Your task to perform on an android device: turn on javascript in the chrome app Image 0: 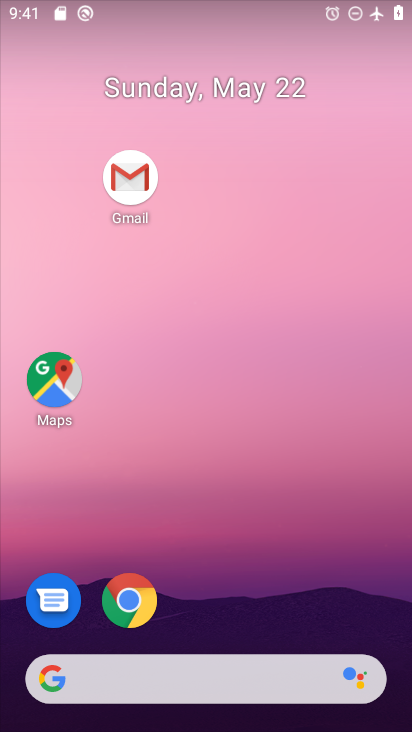
Step 0: drag from (230, 665) to (298, 133)
Your task to perform on an android device: turn on javascript in the chrome app Image 1: 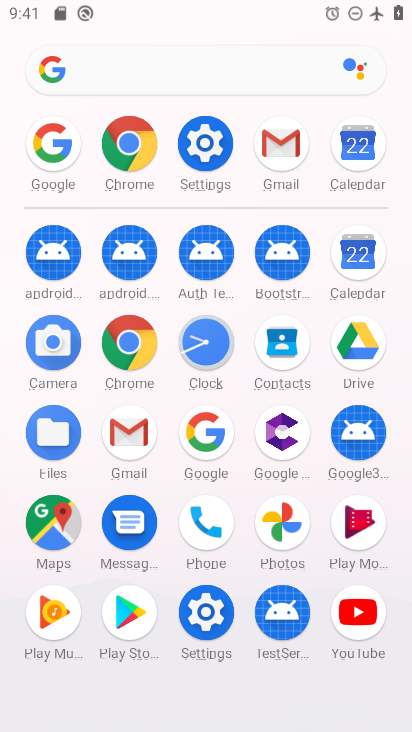
Step 1: click (131, 359)
Your task to perform on an android device: turn on javascript in the chrome app Image 2: 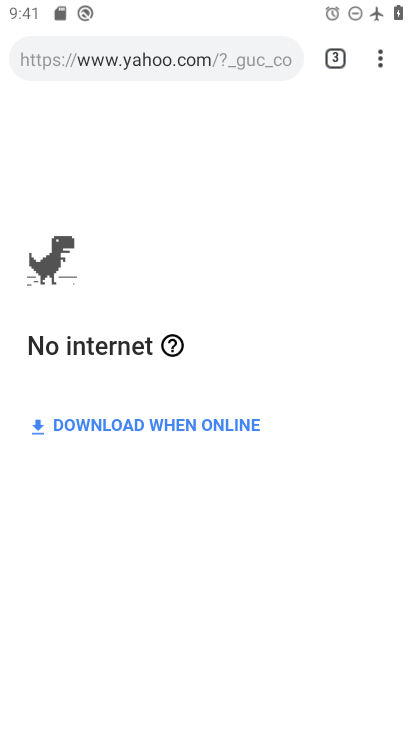
Step 2: click (385, 65)
Your task to perform on an android device: turn on javascript in the chrome app Image 3: 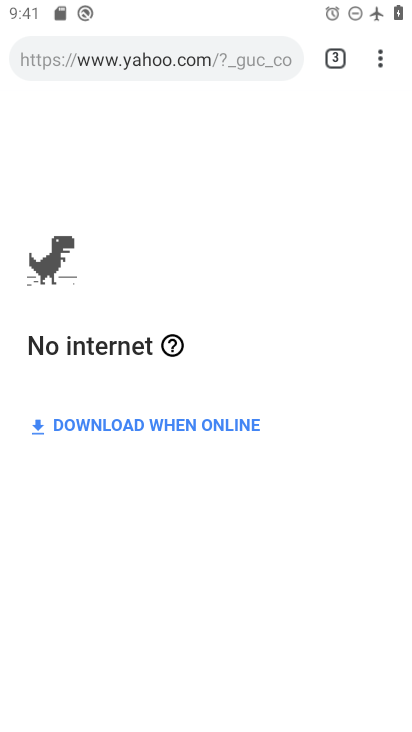
Step 3: click (379, 63)
Your task to perform on an android device: turn on javascript in the chrome app Image 4: 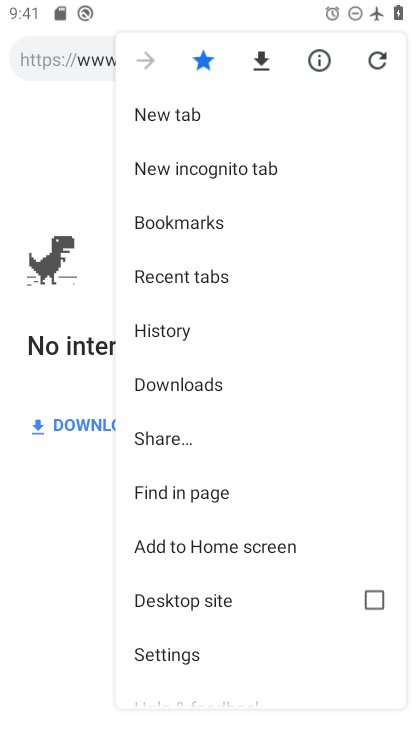
Step 4: click (192, 659)
Your task to perform on an android device: turn on javascript in the chrome app Image 5: 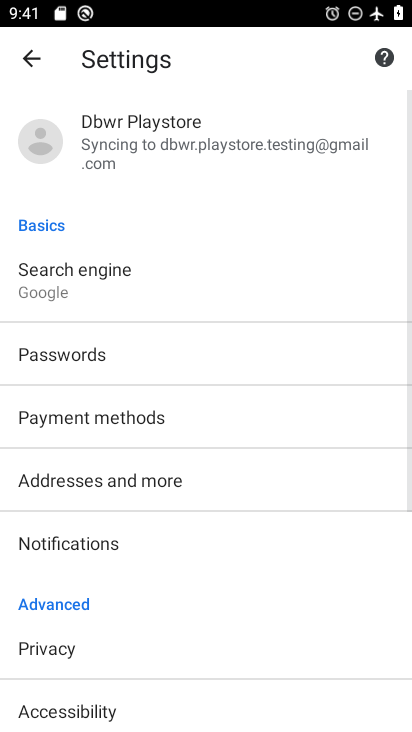
Step 5: drag from (187, 589) to (205, 254)
Your task to perform on an android device: turn on javascript in the chrome app Image 6: 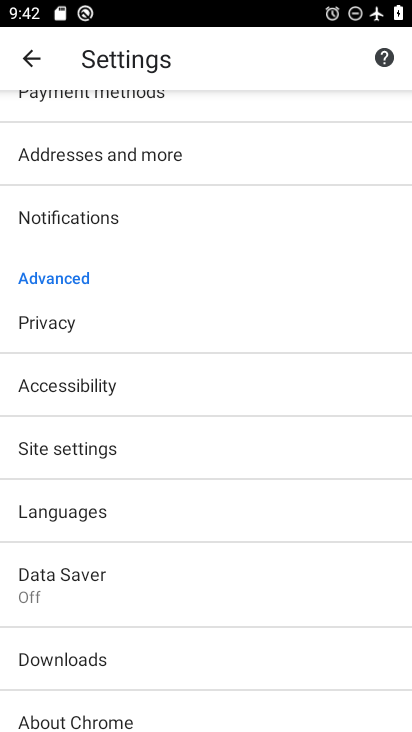
Step 6: drag from (121, 582) to (175, 254)
Your task to perform on an android device: turn on javascript in the chrome app Image 7: 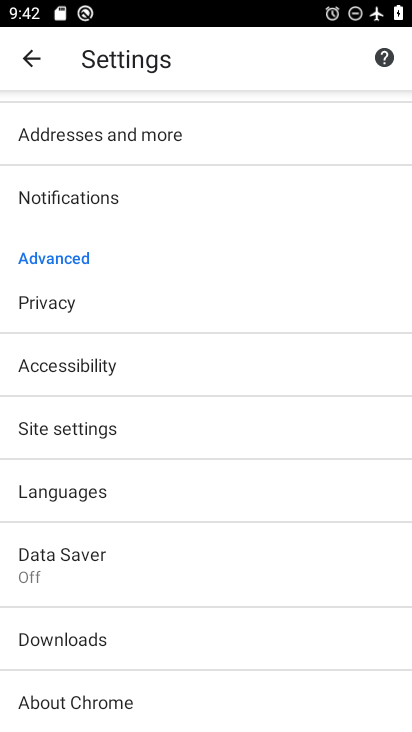
Step 7: click (95, 437)
Your task to perform on an android device: turn on javascript in the chrome app Image 8: 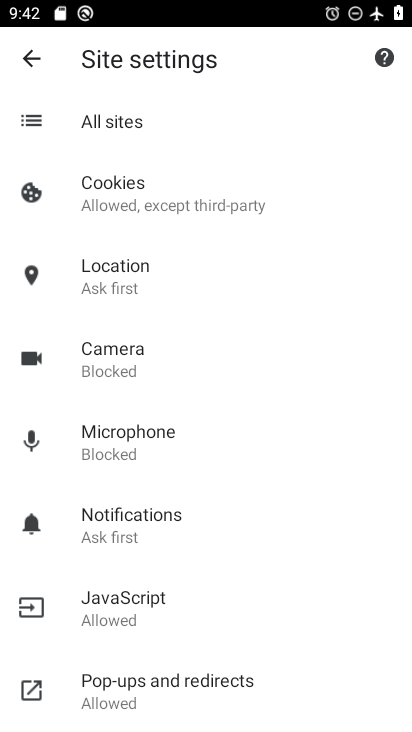
Step 8: click (147, 603)
Your task to perform on an android device: turn on javascript in the chrome app Image 9: 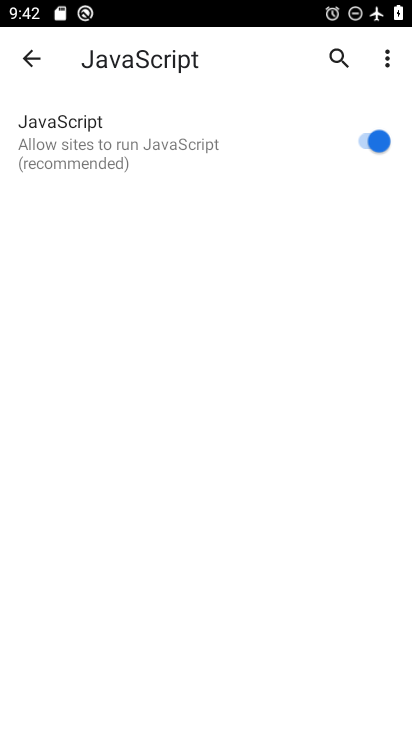
Step 9: task complete